Your task to perform on an android device: Open Youtube and go to the subscriptions tab Image 0: 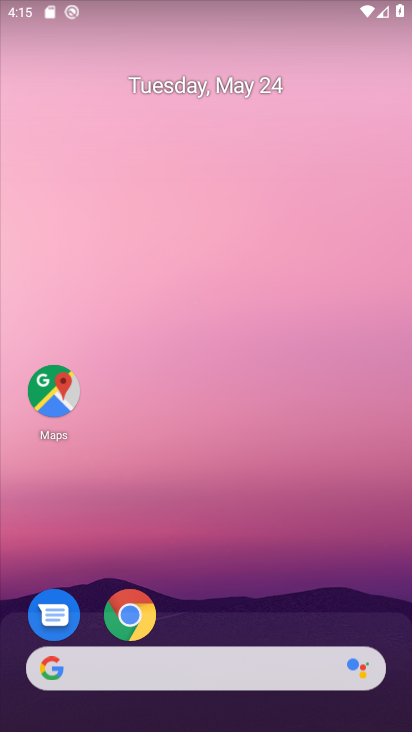
Step 0: drag from (251, 630) to (192, 121)
Your task to perform on an android device: Open Youtube and go to the subscriptions tab Image 1: 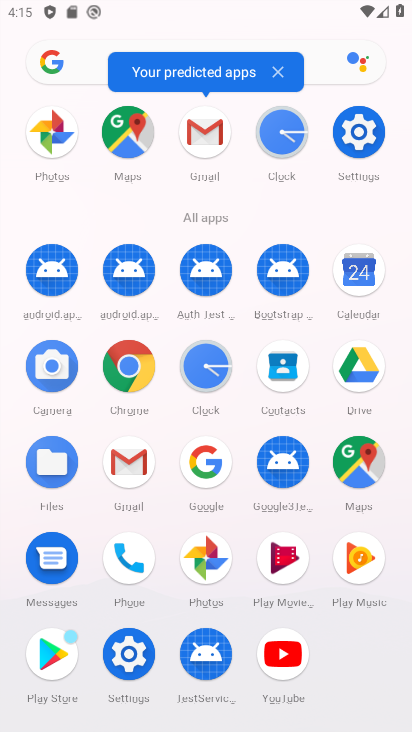
Step 1: click (275, 656)
Your task to perform on an android device: Open Youtube and go to the subscriptions tab Image 2: 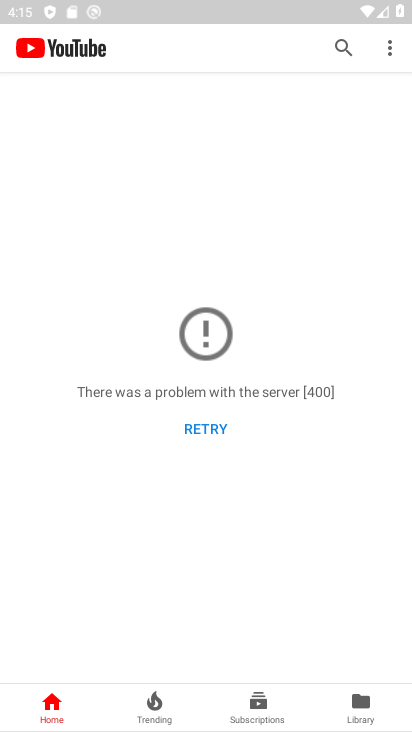
Step 2: click (267, 710)
Your task to perform on an android device: Open Youtube and go to the subscriptions tab Image 3: 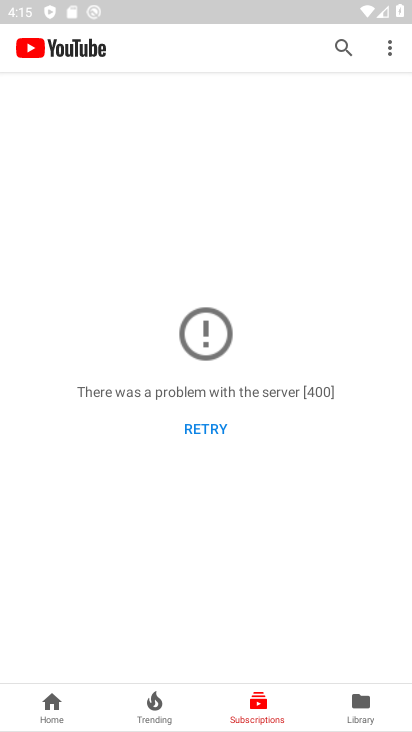
Step 3: task complete